Your task to perform on an android device: check data usage Image 0: 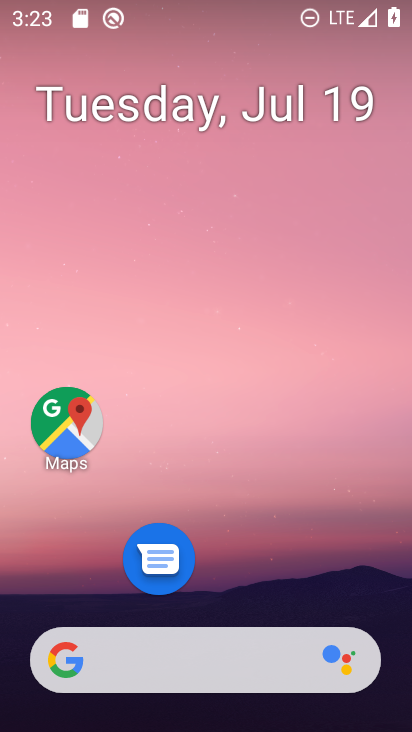
Step 0: drag from (226, 552) to (307, 86)
Your task to perform on an android device: check data usage Image 1: 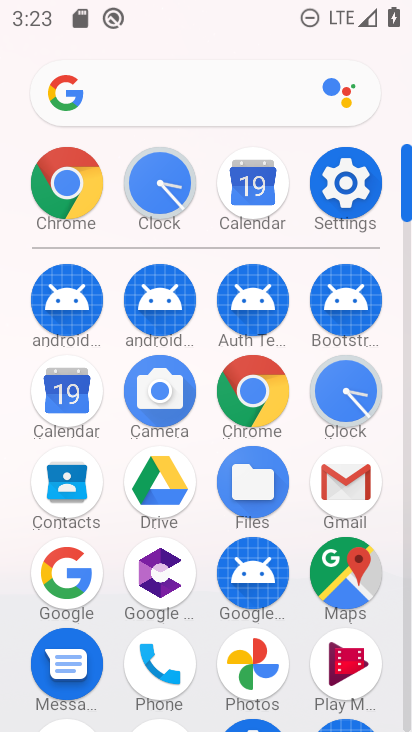
Step 1: click (365, 212)
Your task to perform on an android device: check data usage Image 2: 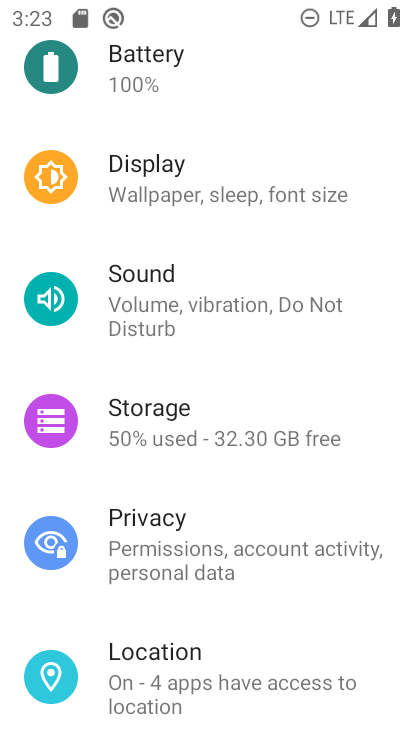
Step 2: drag from (238, 308) to (171, 726)
Your task to perform on an android device: check data usage Image 3: 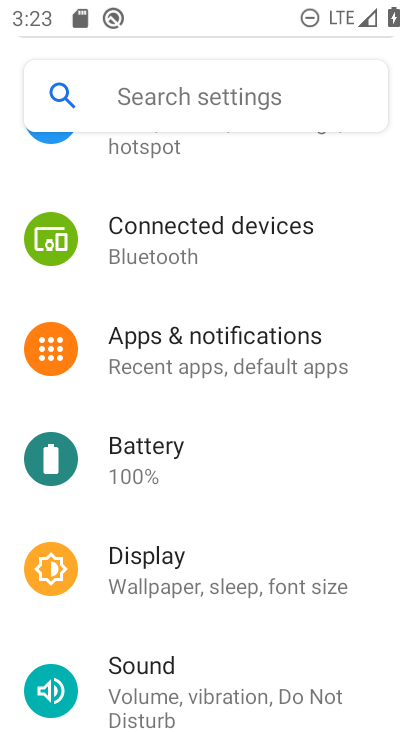
Step 3: drag from (198, 357) to (157, 727)
Your task to perform on an android device: check data usage Image 4: 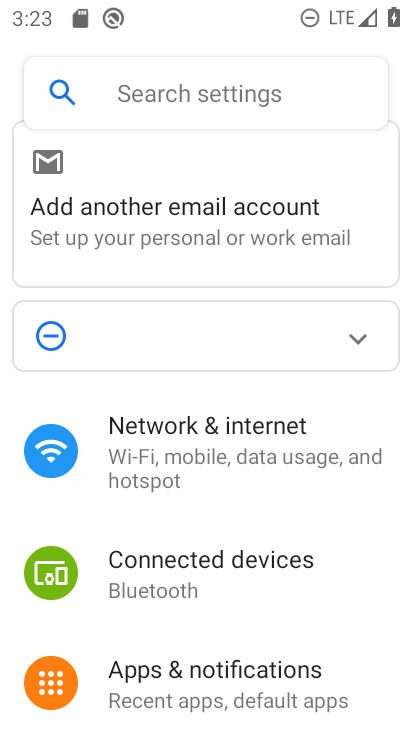
Step 4: click (197, 435)
Your task to perform on an android device: check data usage Image 5: 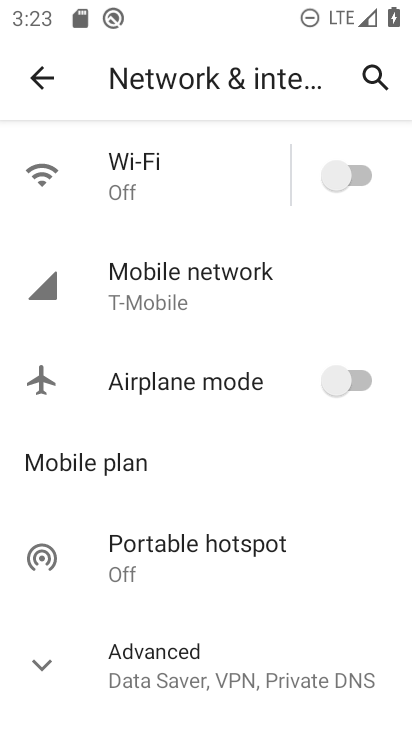
Step 5: click (225, 313)
Your task to perform on an android device: check data usage Image 6: 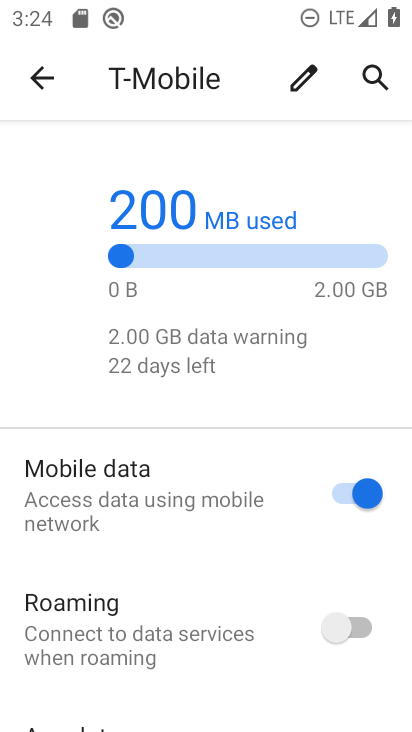
Step 6: drag from (175, 576) to (313, 3)
Your task to perform on an android device: check data usage Image 7: 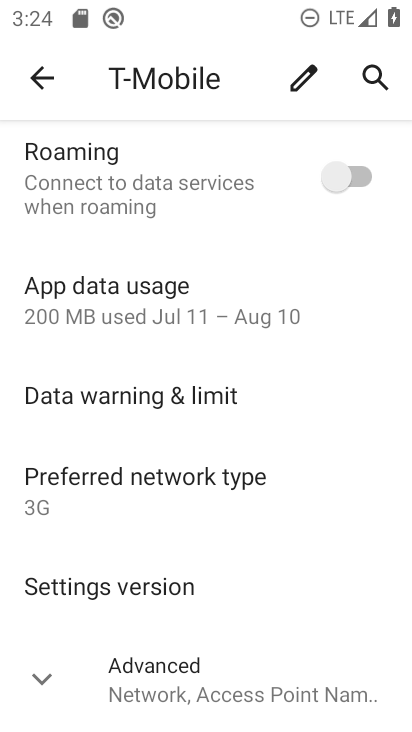
Step 7: click (164, 328)
Your task to perform on an android device: check data usage Image 8: 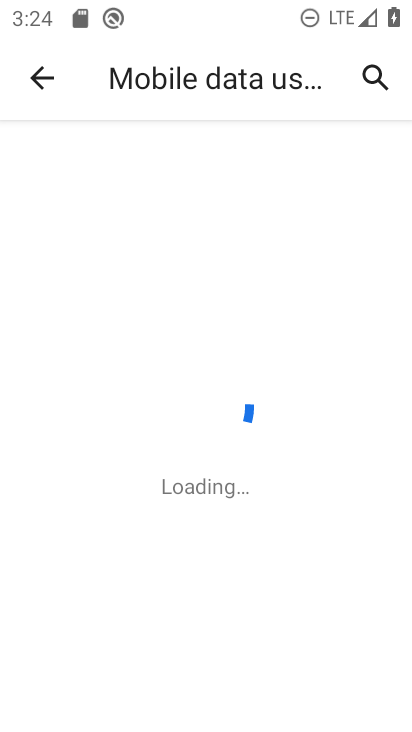
Step 8: task complete